Your task to perform on an android device: turn off javascript in the chrome app Image 0: 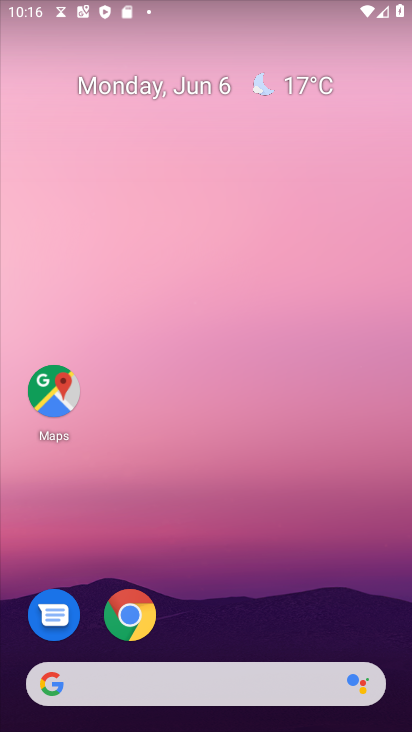
Step 0: click (130, 610)
Your task to perform on an android device: turn off javascript in the chrome app Image 1: 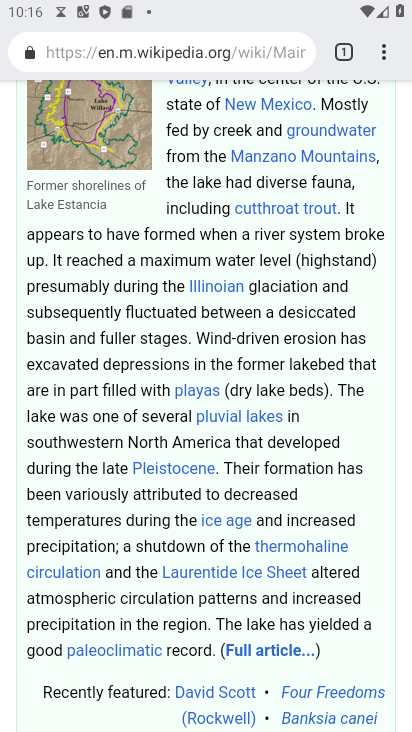
Step 1: click (385, 48)
Your task to perform on an android device: turn off javascript in the chrome app Image 2: 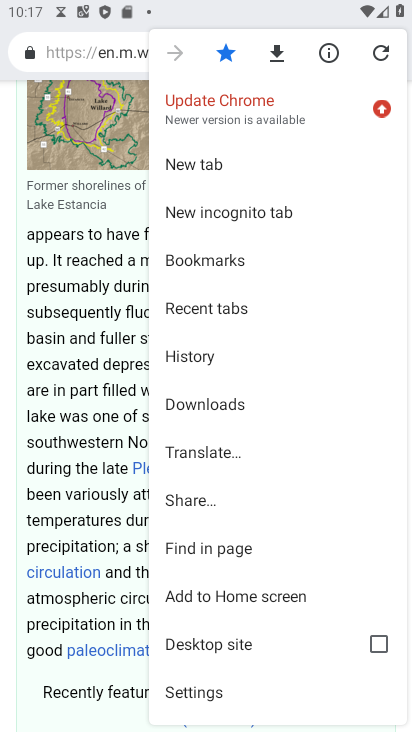
Step 2: click (230, 697)
Your task to perform on an android device: turn off javascript in the chrome app Image 3: 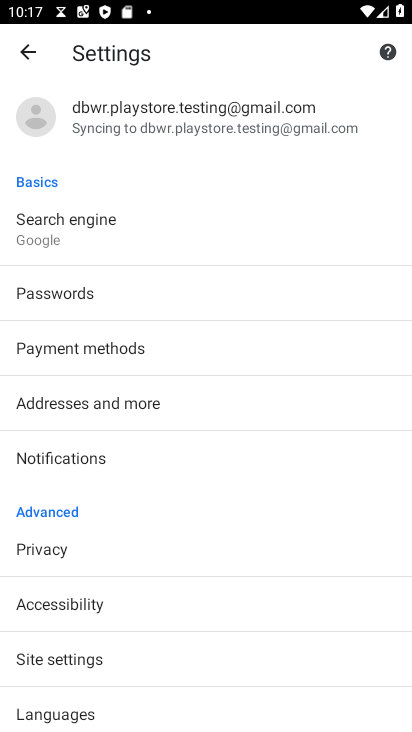
Step 3: click (115, 656)
Your task to perform on an android device: turn off javascript in the chrome app Image 4: 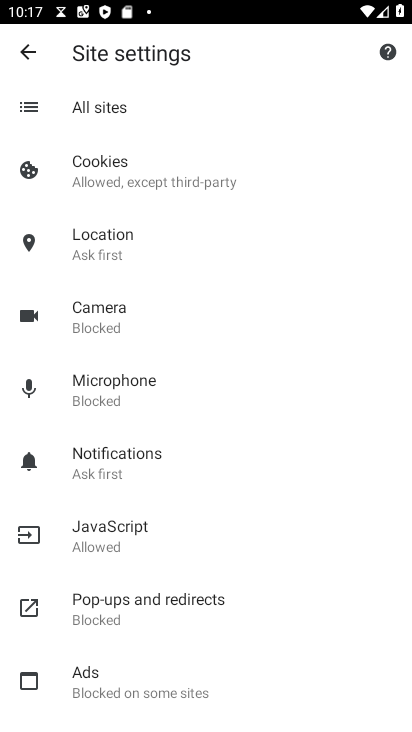
Step 4: click (149, 536)
Your task to perform on an android device: turn off javascript in the chrome app Image 5: 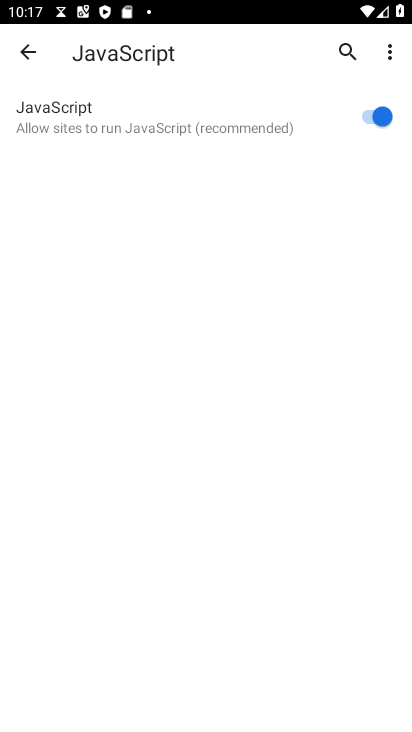
Step 5: click (373, 117)
Your task to perform on an android device: turn off javascript in the chrome app Image 6: 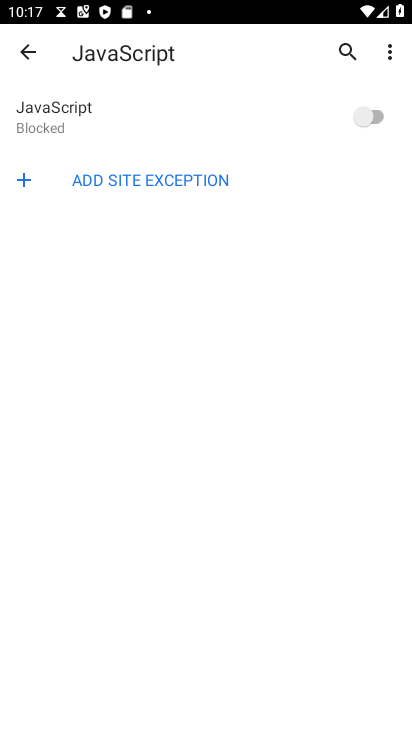
Step 6: task complete